Your task to perform on an android device: Search for Italian restaurants on Maps Image 0: 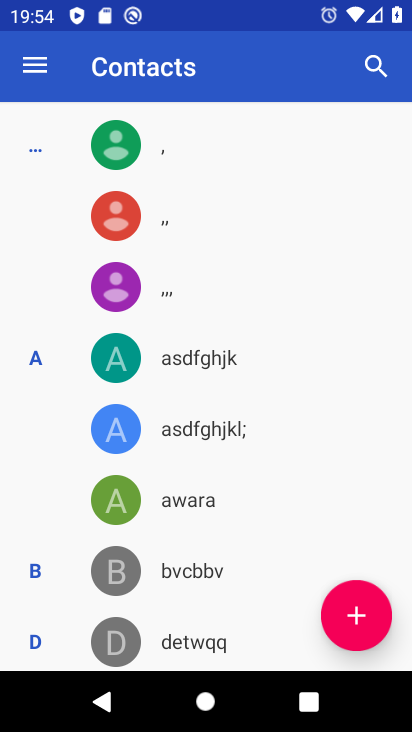
Step 0: press home button
Your task to perform on an android device: Search for Italian restaurants on Maps Image 1: 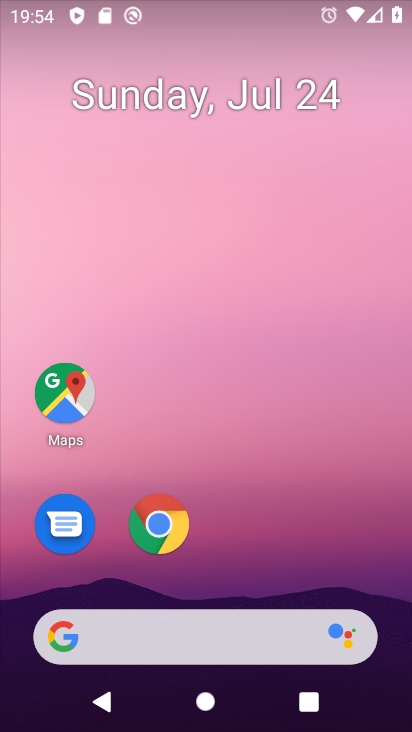
Step 1: click (73, 393)
Your task to perform on an android device: Search for Italian restaurants on Maps Image 2: 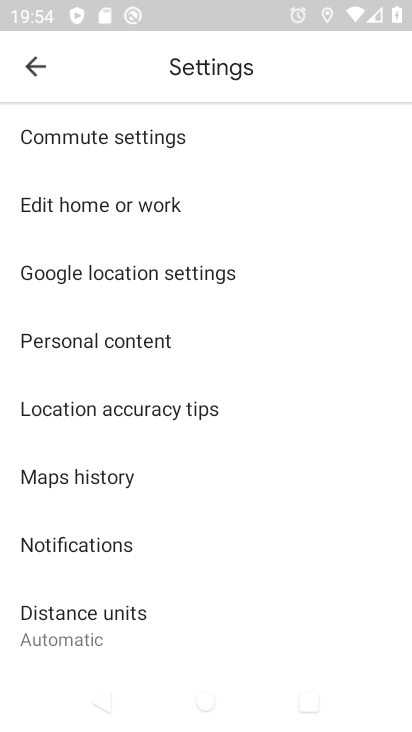
Step 2: click (38, 56)
Your task to perform on an android device: Search for Italian restaurants on Maps Image 3: 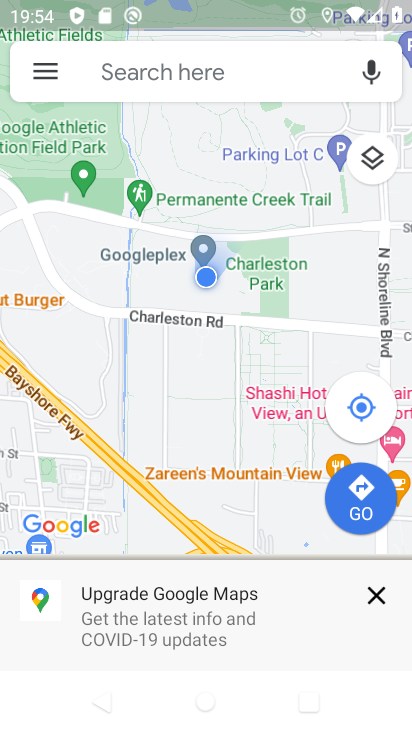
Step 3: click (165, 75)
Your task to perform on an android device: Search for Italian restaurants on Maps Image 4: 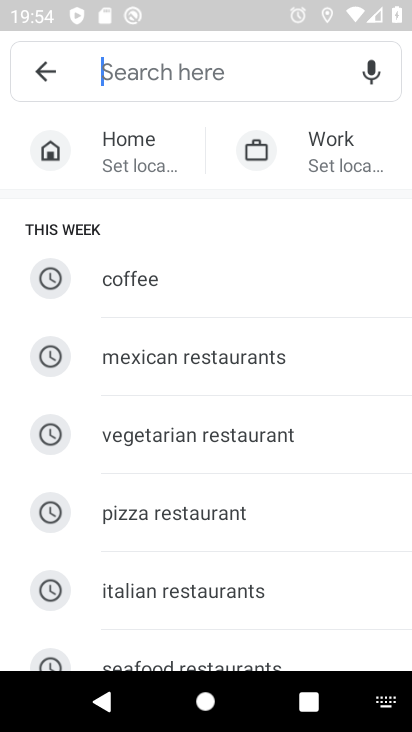
Step 4: click (225, 601)
Your task to perform on an android device: Search for Italian restaurants on Maps Image 5: 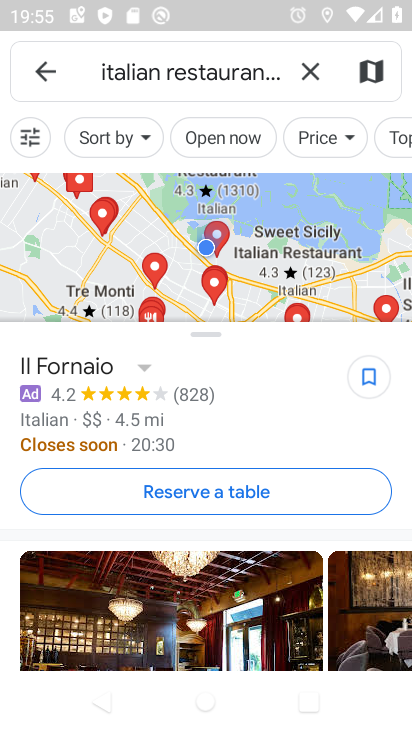
Step 5: task complete